Your task to perform on an android device: Open settings Image 0: 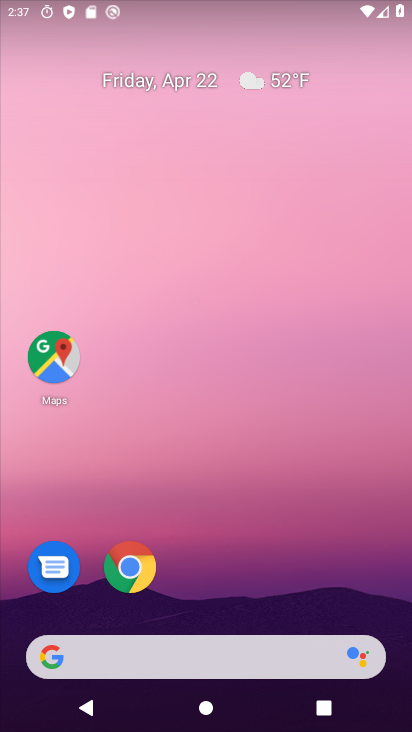
Step 0: drag from (235, 589) to (192, 115)
Your task to perform on an android device: Open settings Image 1: 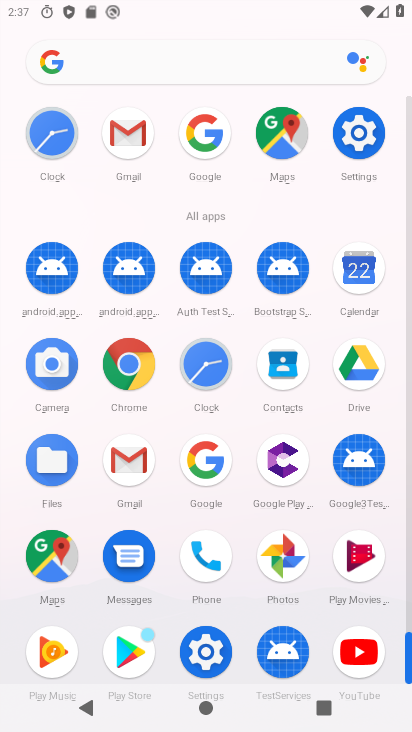
Step 1: click (340, 144)
Your task to perform on an android device: Open settings Image 2: 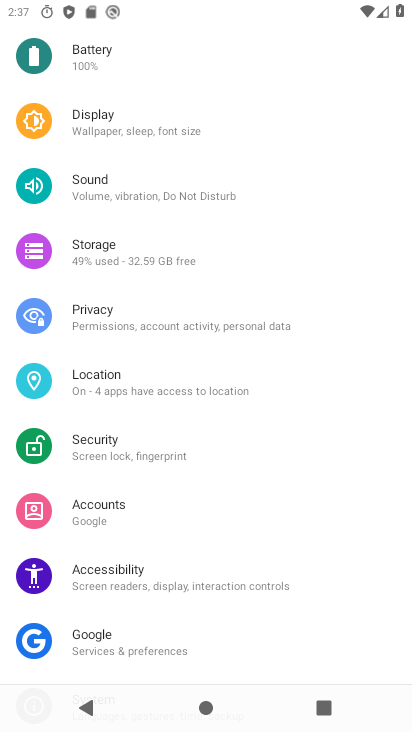
Step 2: task complete